Your task to perform on an android device: turn on priority inbox in the gmail app Image 0: 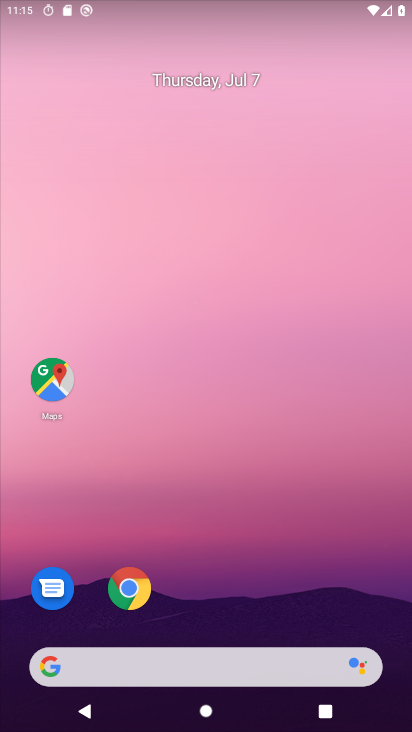
Step 0: drag from (159, 664) to (240, 194)
Your task to perform on an android device: turn on priority inbox in the gmail app Image 1: 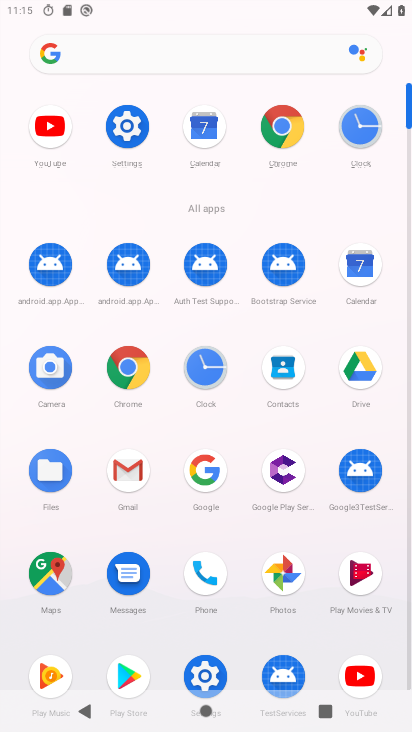
Step 1: click (128, 478)
Your task to perform on an android device: turn on priority inbox in the gmail app Image 2: 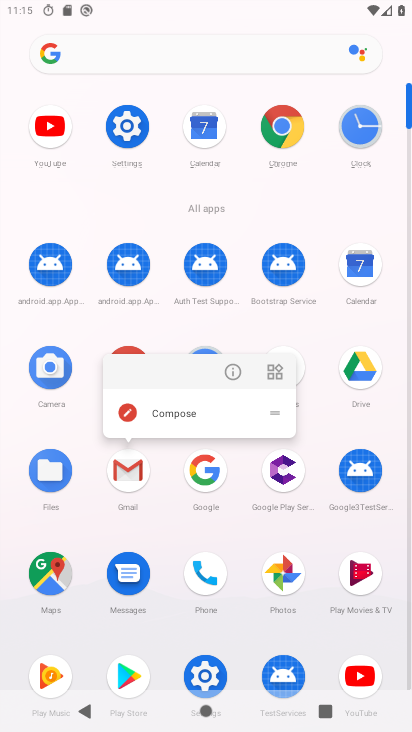
Step 2: click (128, 476)
Your task to perform on an android device: turn on priority inbox in the gmail app Image 3: 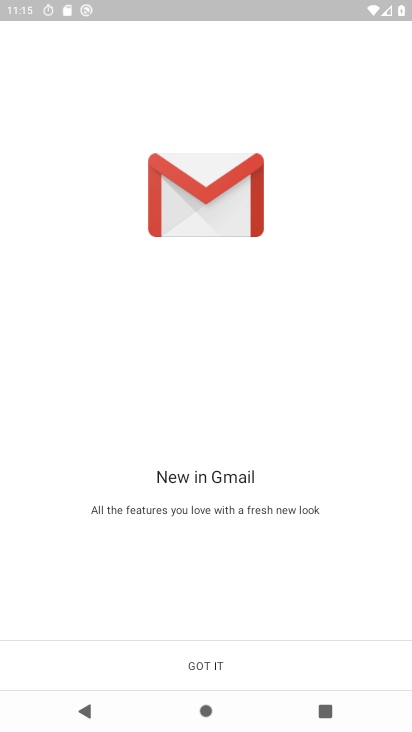
Step 3: click (211, 670)
Your task to perform on an android device: turn on priority inbox in the gmail app Image 4: 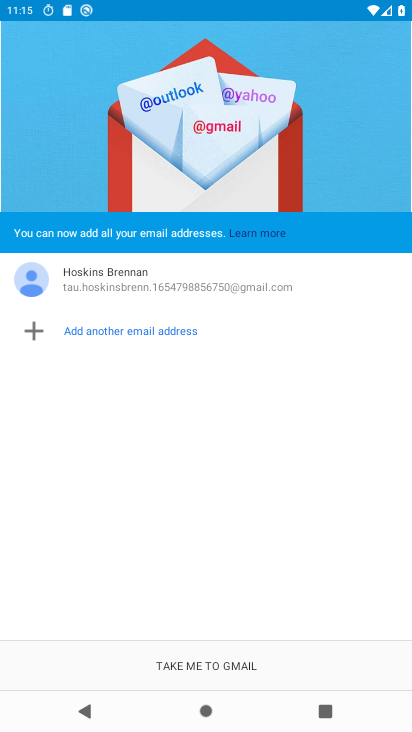
Step 4: click (211, 670)
Your task to perform on an android device: turn on priority inbox in the gmail app Image 5: 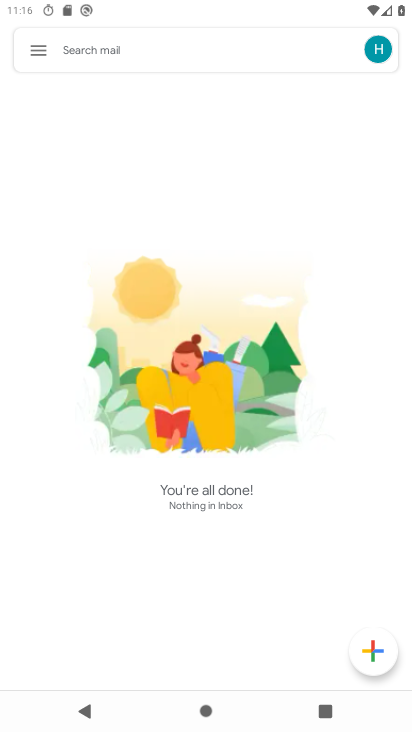
Step 5: click (35, 43)
Your task to perform on an android device: turn on priority inbox in the gmail app Image 6: 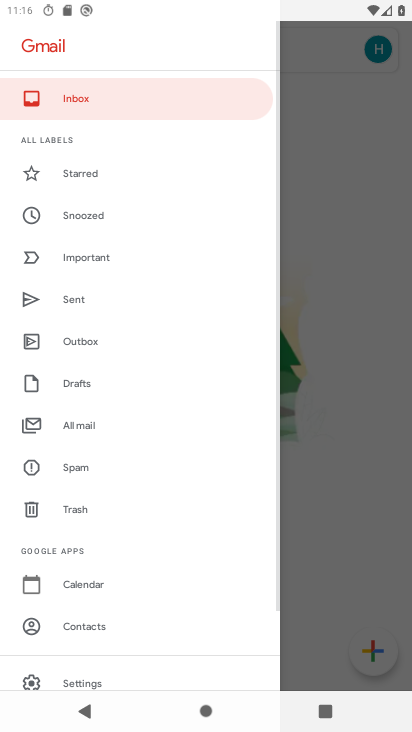
Step 6: drag from (116, 631) to (246, 220)
Your task to perform on an android device: turn on priority inbox in the gmail app Image 7: 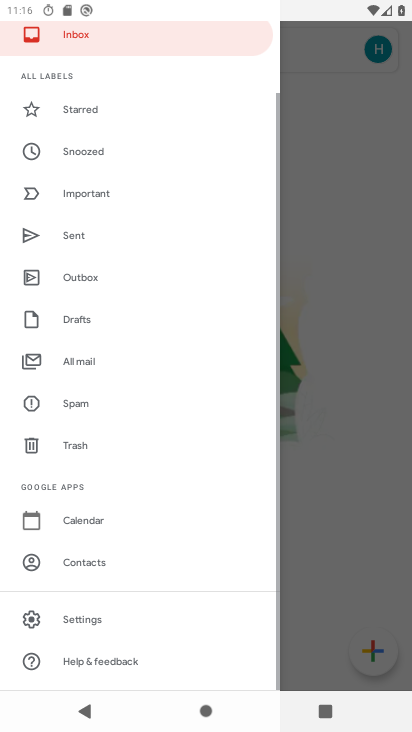
Step 7: click (99, 622)
Your task to perform on an android device: turn on priority inbox in the gmail app Image 8: 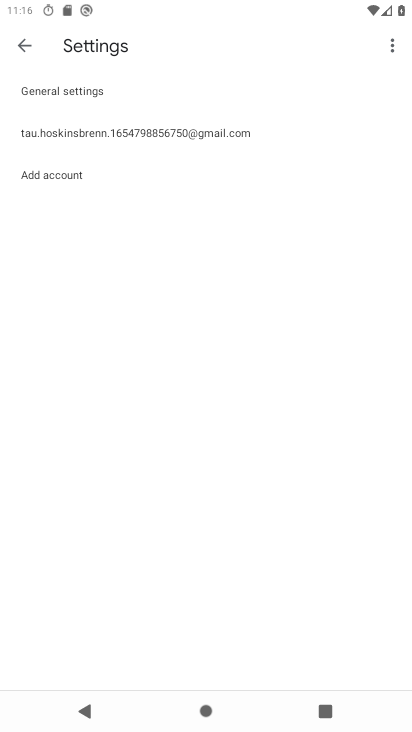
Step 8: click (207, 130)
Your task to perform on an android device: turn on priority inbox in the gmail app Image 9: 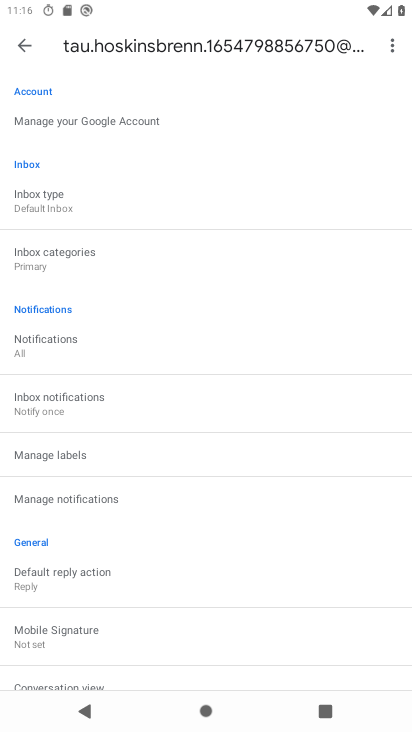
Step 9: click (60, 199)
Your task to perform on an android device: turn on priority inbox in the gmail app Image 10: 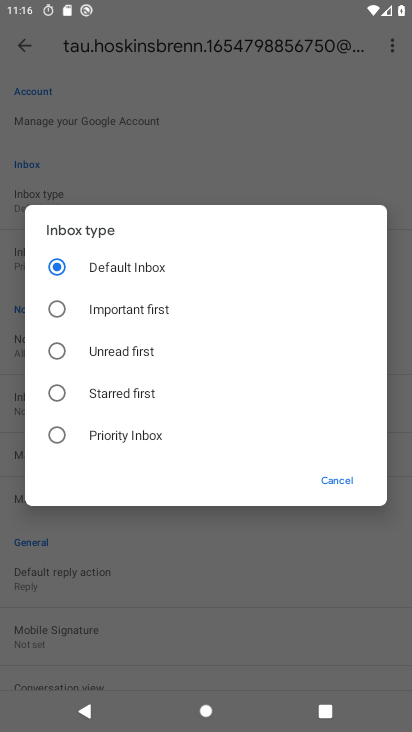
Step 10: click (60, 430)
Your task to perform on an android device: turn on priority inbox in the gmail app Image 11: 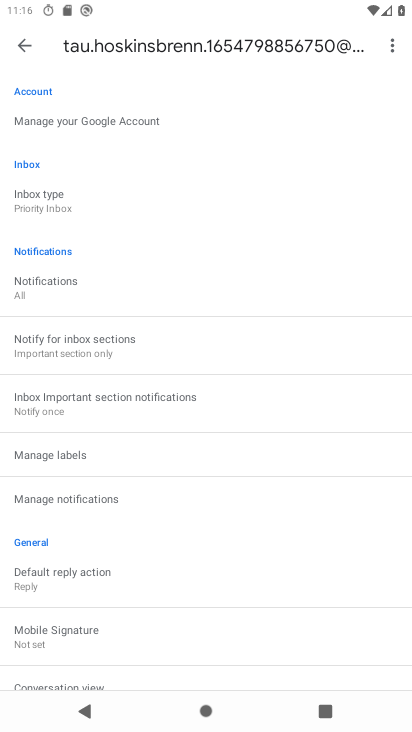
Step 11: task complete